Your task to perform on an android device: refresh tabs in the chrome app Image 0: 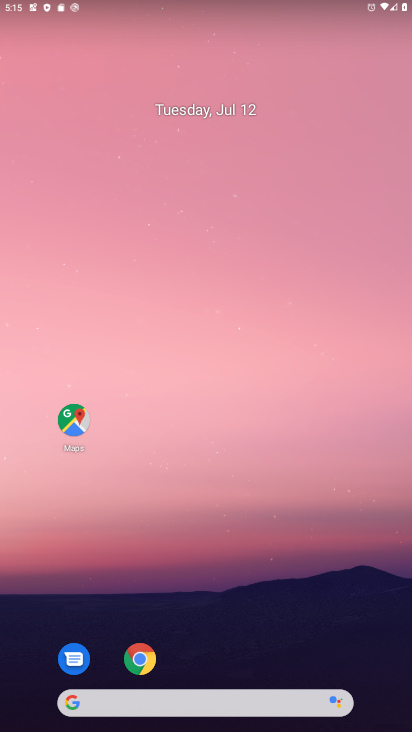
Step 0: click (144, 673)
Your task to perform on an android device: refresh tabs in the chrome app Image 1: 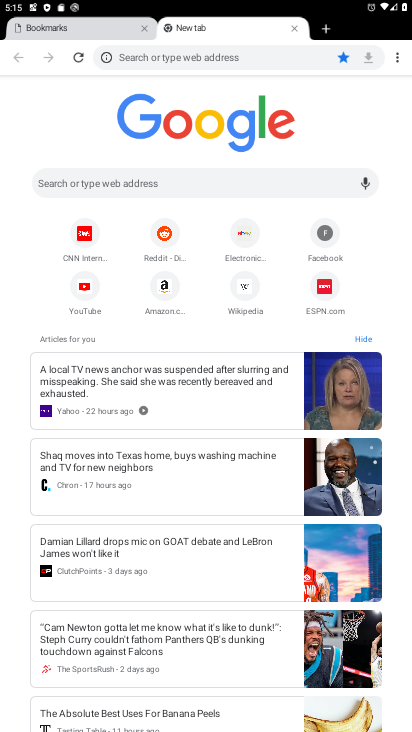
Step 1: click (396, 54)
Your task to perform on an android device: refresh tabs in the chrome app Image 2: 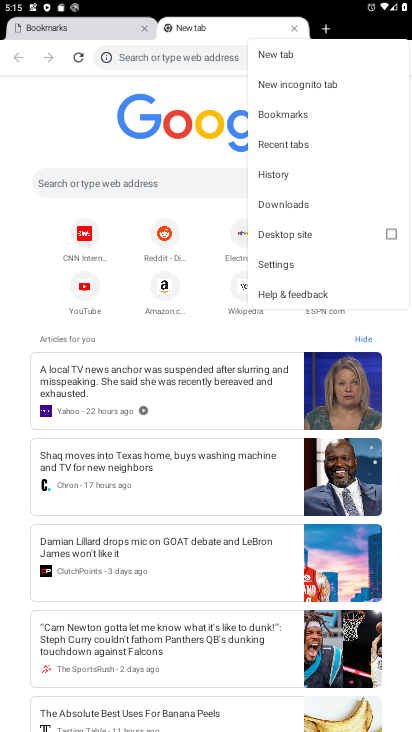
Step 2: click (76, 50)
Your task to perform on an android device: refresh tabs in the chrome app Image 3: 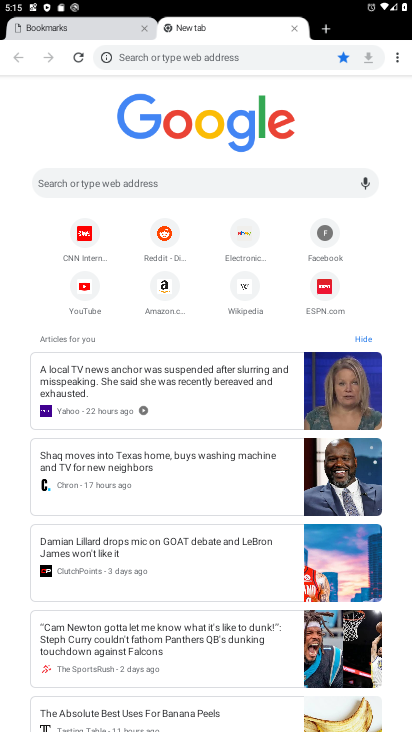
Step 3: task complete